Your task to perform on an android device: open wifi settings Image 0: 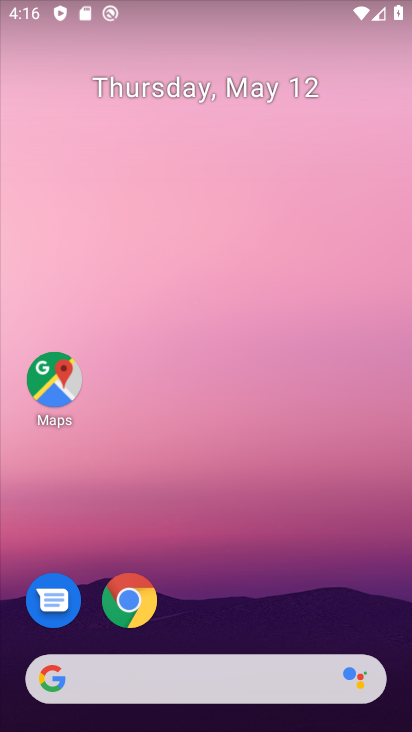
Step 0: drag from (212, 636) to (256, 257)
Your task to perform on an android device: open wifi settings Image 1: 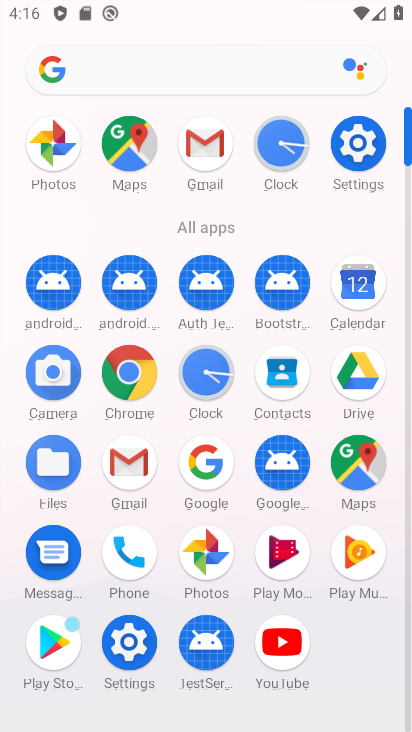
Step 1: click (355, 152)
Your task to perform on an android device: open wifi settings Image 2: 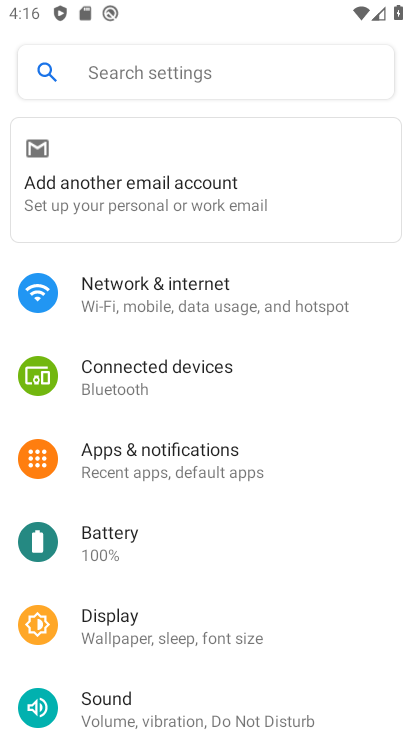
Step 2: drag from (136, 169) to (296, 12)
Your task to perform on an android device: open wifi settings Image 3: 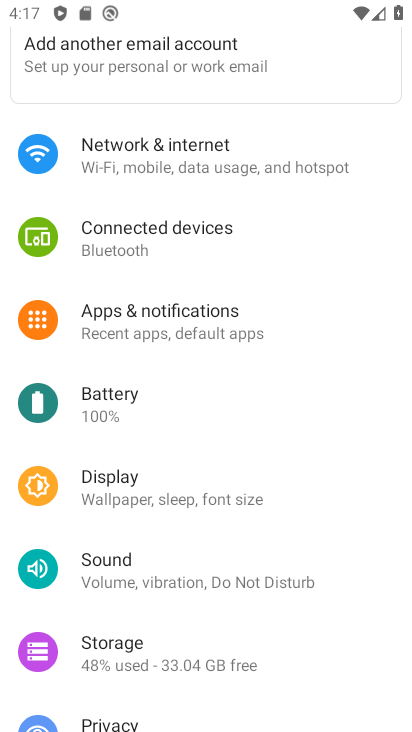
Step 3: click (185, 129)
Your task to perform on an android device: open wifi settings Image 4: 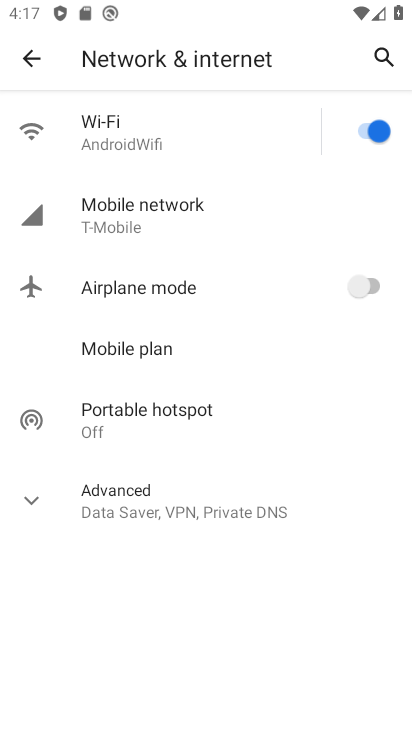
Step 4: click (192, 140)
Your task to perform on an android device: open wifi settings Image 5: 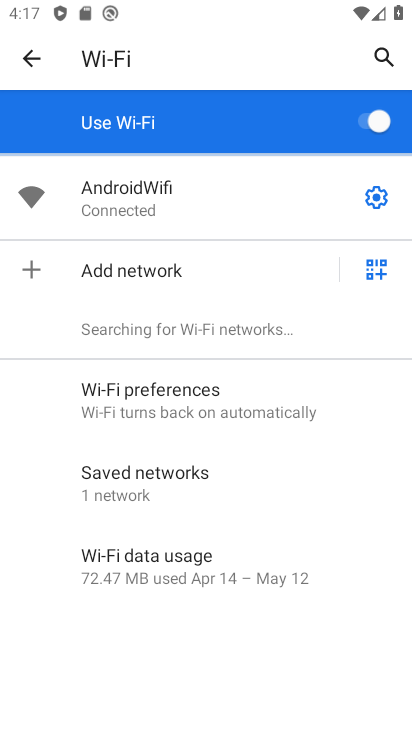
Step 5: task complete